Your task to perform on an android device: What's the weather going to be tomorrow? Image 0: 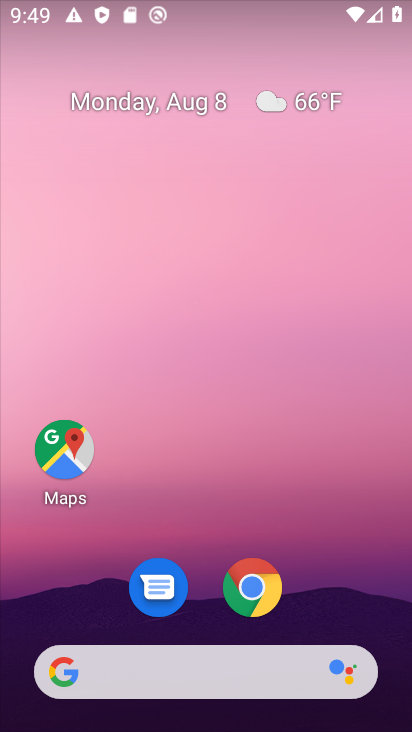
Step 0: click (125, 677)
Your task to perform on an android device: What's the weather going to be tomorrow? Image 1: 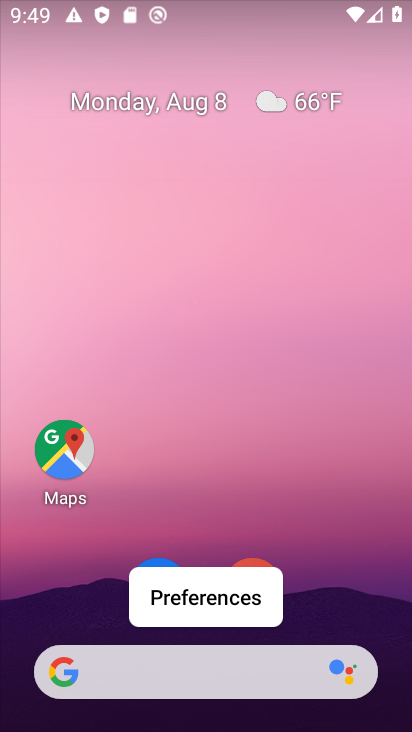
Step 1: drag from (152, 472) to (150, 256)
Your task to perform on an android device: What's the weather going to be tomorrow? Image 2: 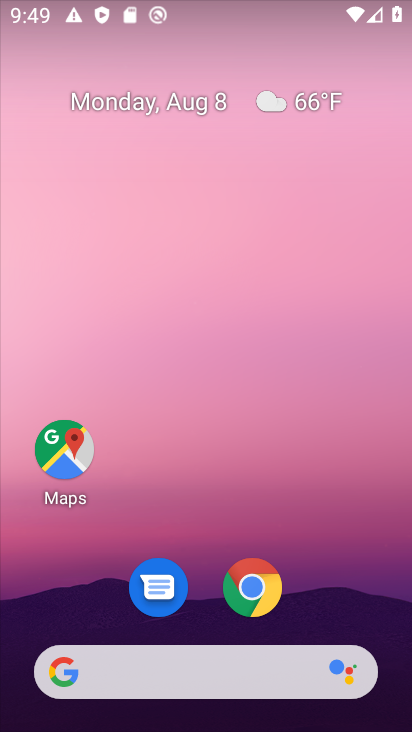
Step 2: drag from (162, 690) to (164, 76)
Your task to perform on an android device: What's the weather going to be tomorrow? Image 3: 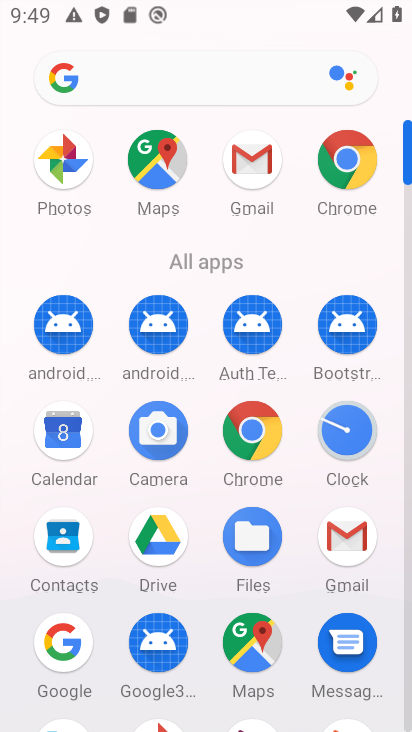
Step 3: click (239, 63)
Your task to perform on an android device: What's the weather going to be tomorrow? Image 4: 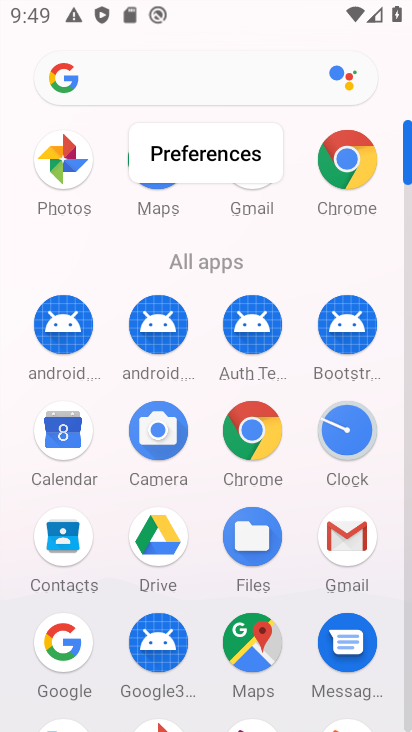
Step 4: type "What's the weather going to be tomorrow?"
Your task to perform on an android device: What's the weather going to be tomorrow? Image 5: 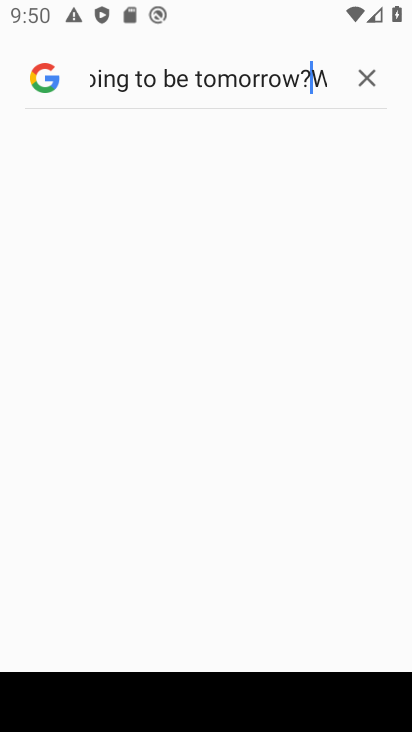
Step 5: type ""
Your task to perform on an android device: What's the weather going to be tomorrow? Image 6: 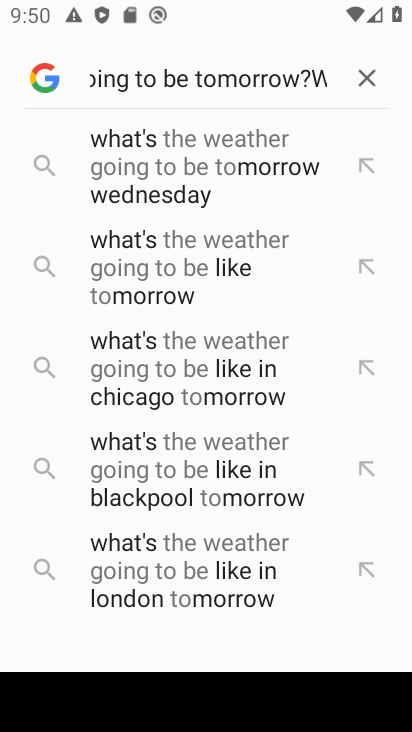
Step 6: click (369, 79)
Your task to perform on an android device: What's the weather going to be tomorrow? Image 7: 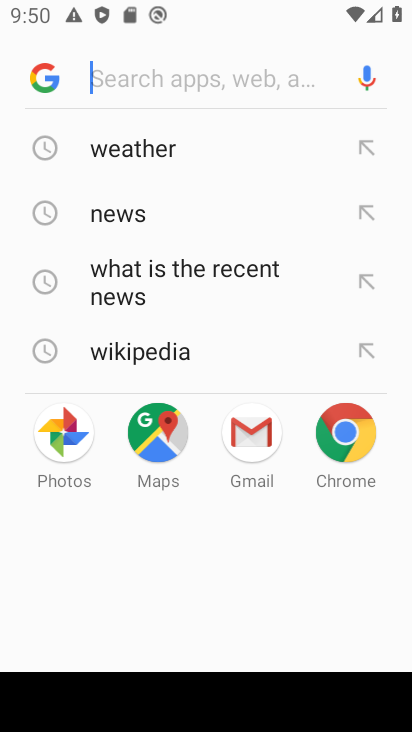
Step 7: type "What's the weather going to be tomorrow?"
Your task to perform on an android device: What's the weather going to be tomorrow? Image 8: 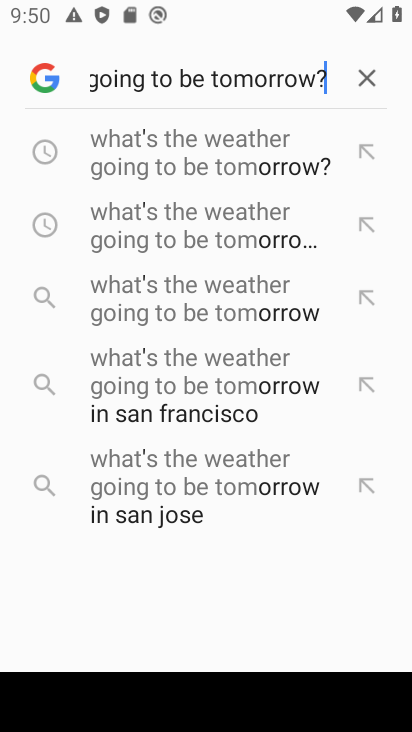
Step 8: type ""
Your task to perform on an android device: What's the weather going to be tomorrow? Image 9: 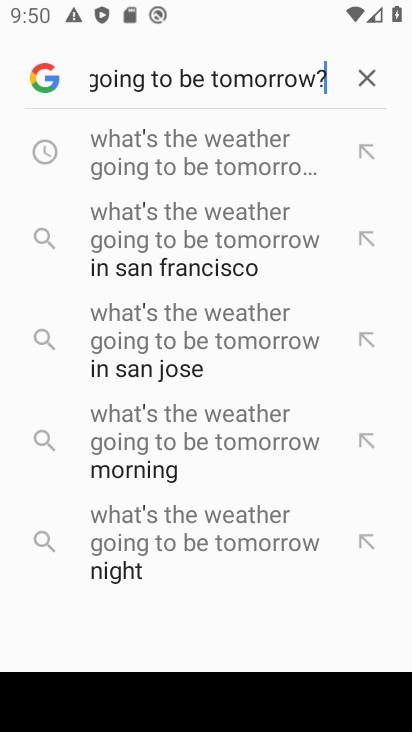
Step 9: press enter
Your task to perform on an android device: What's the weather going to be tomorrow? Image 10: 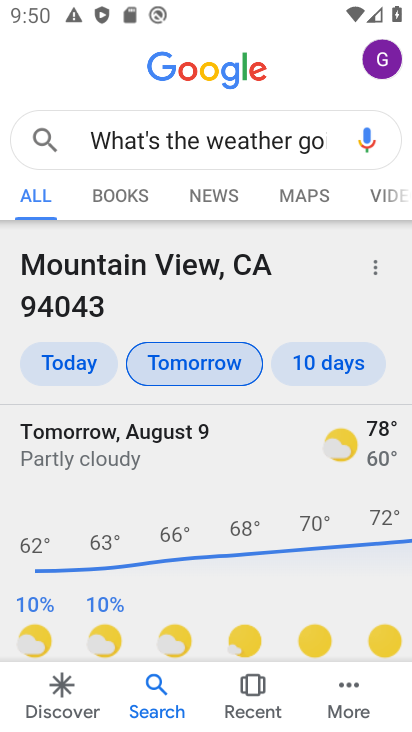
Step 10: task complete